Your task to perform on an android device: Go to Yahoo.com Image 0: 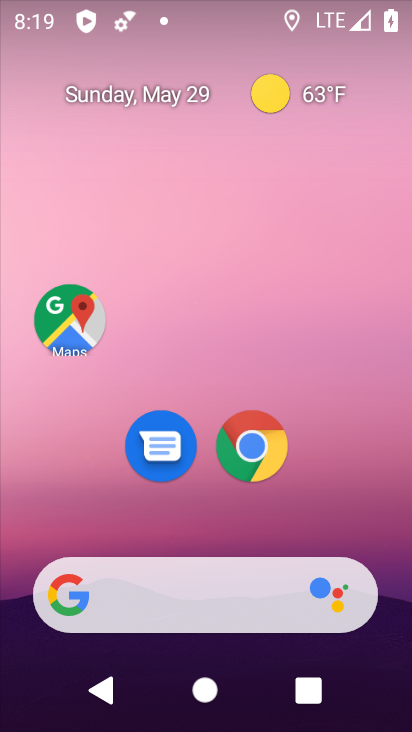
Step 0: click (244, 443)
Your task to perform on an android device: Go to Yahoo.com Image 1: 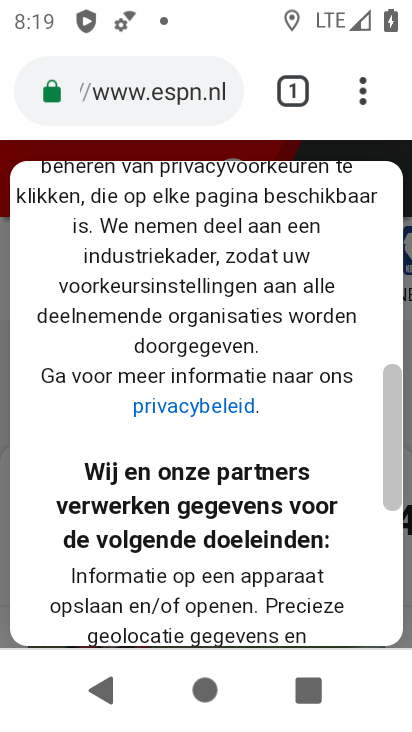
Step 1: click (290, 74)
Your task to perform on an android device: Go to Yahoo.com Image 2: 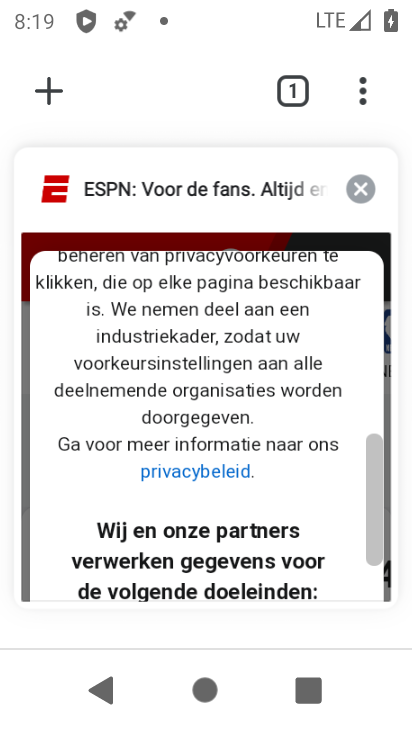
Step 2: click (55, 88)
Your task to perform on an android device: Go to Yahoo.com Image 3: 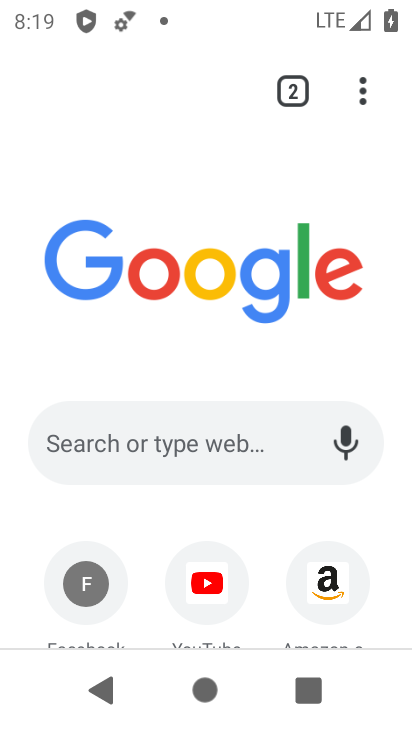
Step 3: drag from (160, 500) to (142, 259)
Your task to perform on an android device: Go to Yahoo.com Image 4: 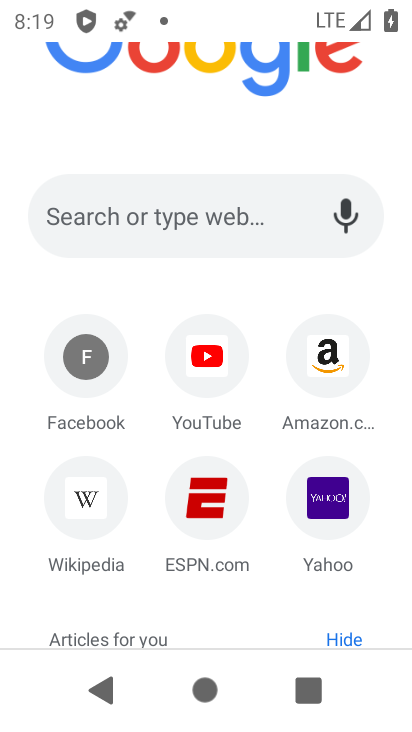
Step 4: click (311, 503)
Your task to perform on an android device: Go to Yahoo.com Image 5: 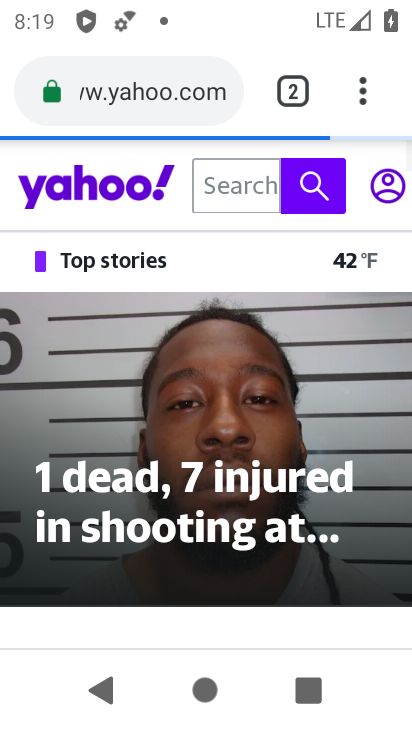
Step 5: task complete